Your task to perform on an android device: set the timer Image 0: 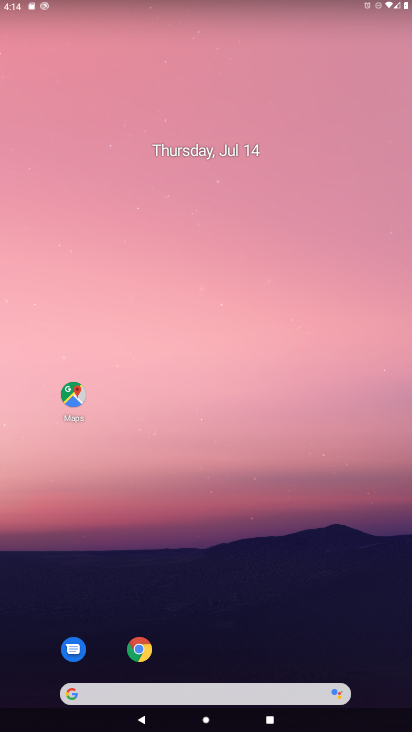
Step 0: drag from (190, 638) to (234, 204)
Your task to perform on an android device: set the timer Image 1: 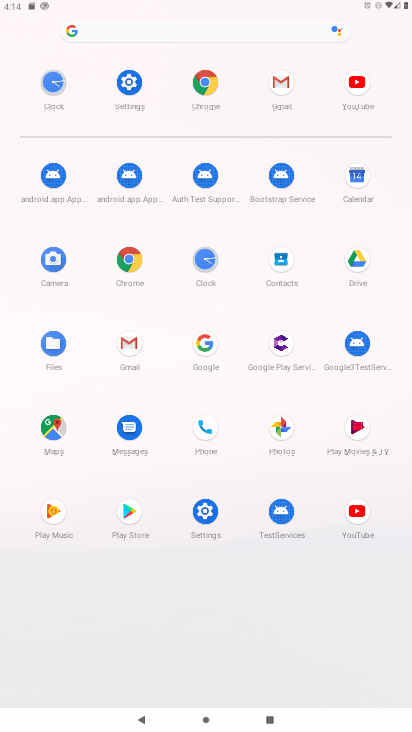
Step 1: click (210, 269)
Your task to perform on an android device: set the timer Image 2: 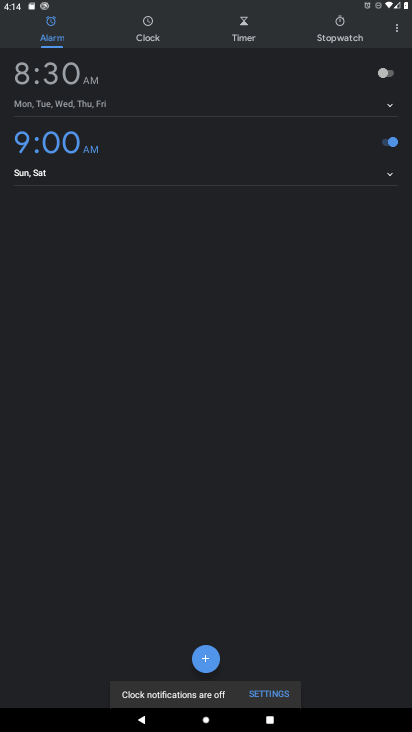
Step 2: click (248, 36)
Your task to perform on an android device: set the timer Image 3: 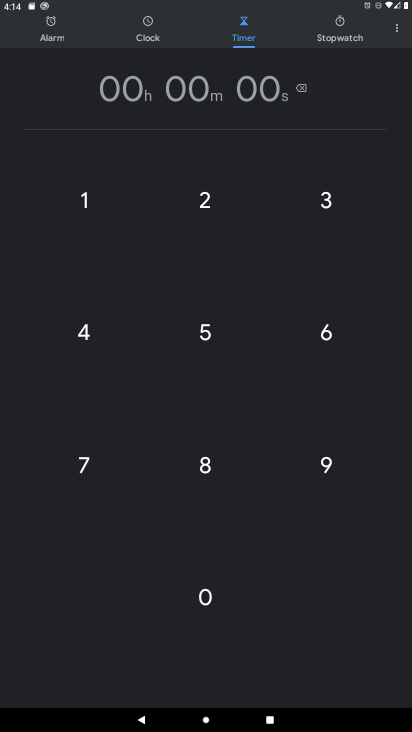
Step 3: click (205, 469)
Your task to perform on an android device: set the timer Image 4: 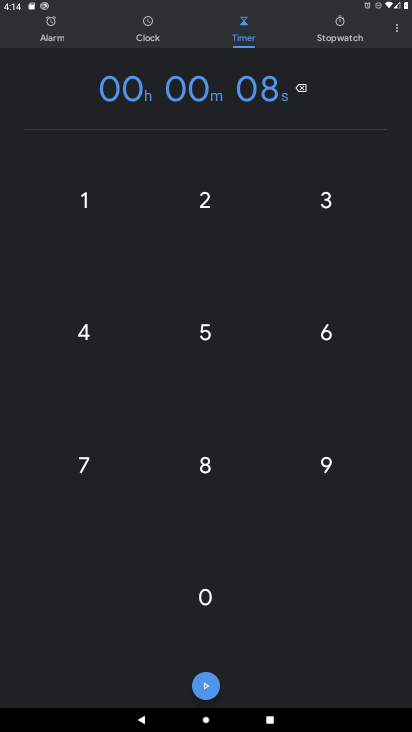
Step 4: click (84, 339)
Your task to perform on an android device: set the timer Image 5: 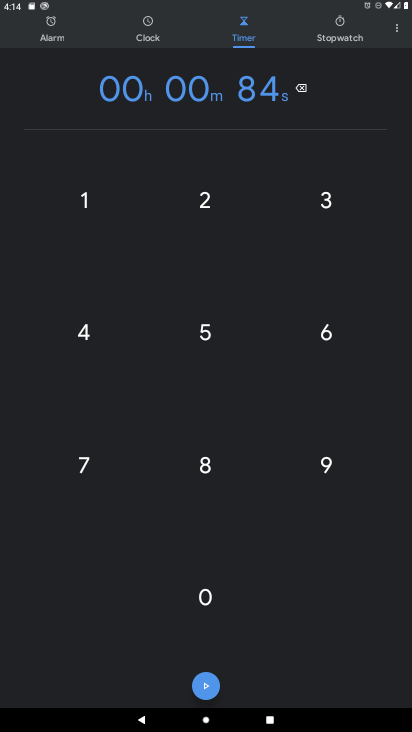
Step 5: click (329, 345)
Your task to perform on an android device: set the timer Image 6: 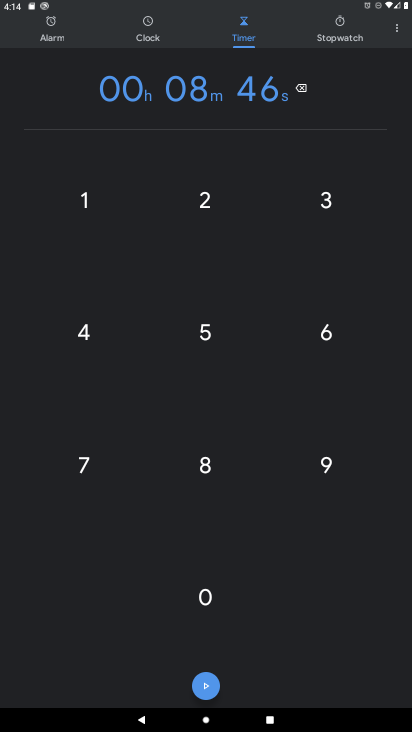
Step 6: click (203, 680)
Your task to perform on an android device: set the timer Image 7: 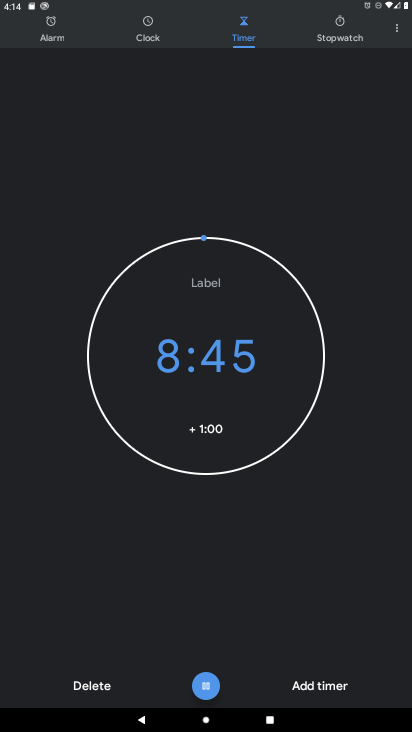
Step 7: task complete